Your task to perform on an android device: create a new album in the google photos Image 0: 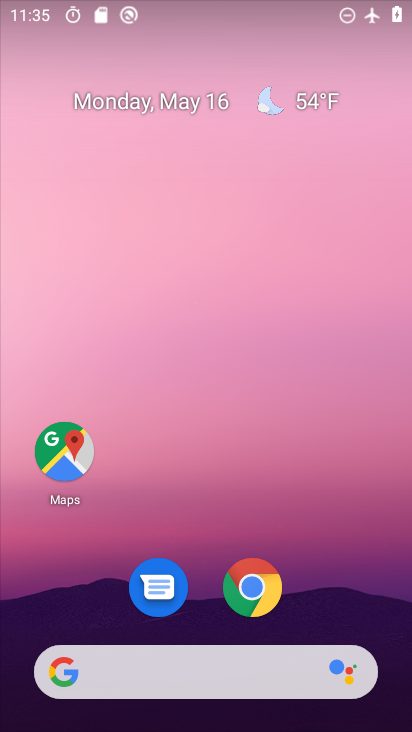
Step 0: drag from (201, 612) to (194, 136)
Your task to perform on an android device: create a new album in the google photos Image 1: 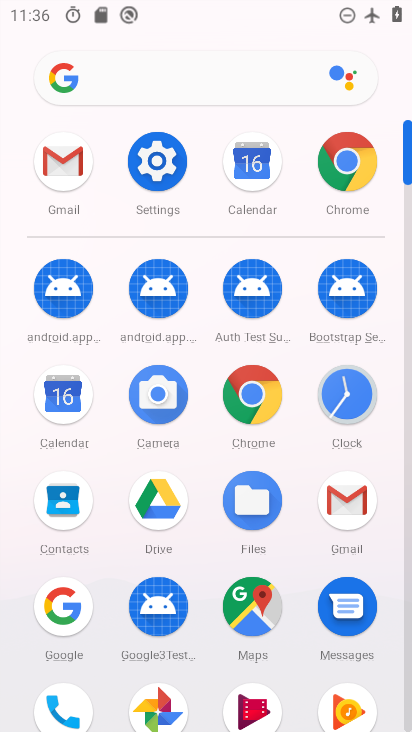
Step 1: drag from (191, 642) to (203, 207)
Your task to perform on an android device: create a new album in the google photos Image 2: 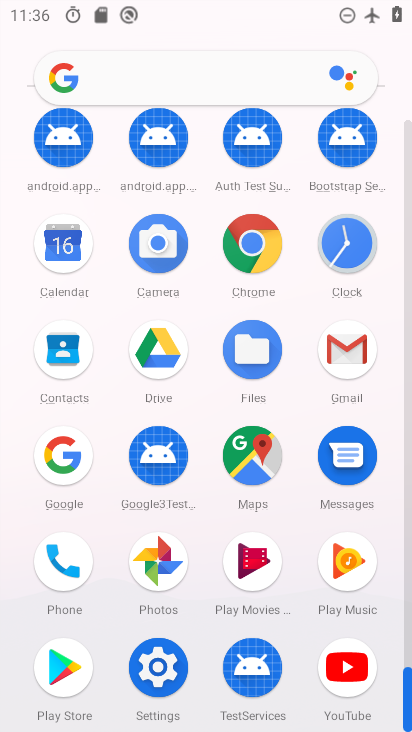
Step 2: click (165, 561)
Your task to perform on an android device: create a new album in the google photos Image 3: 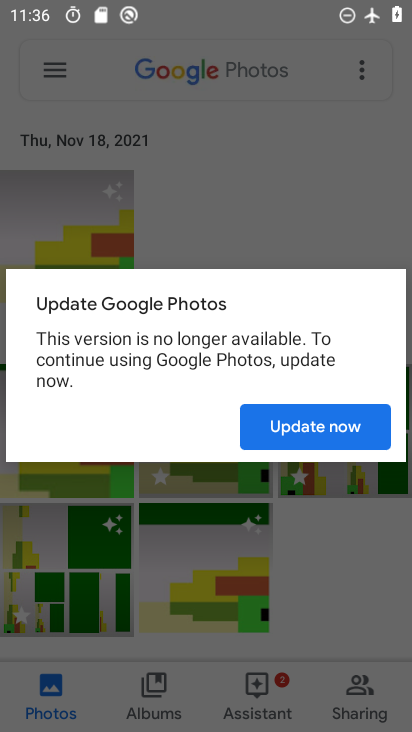
Step 3: click (282, 437)
Your task to perform on an android device: create a new album in the google photos Image 4: 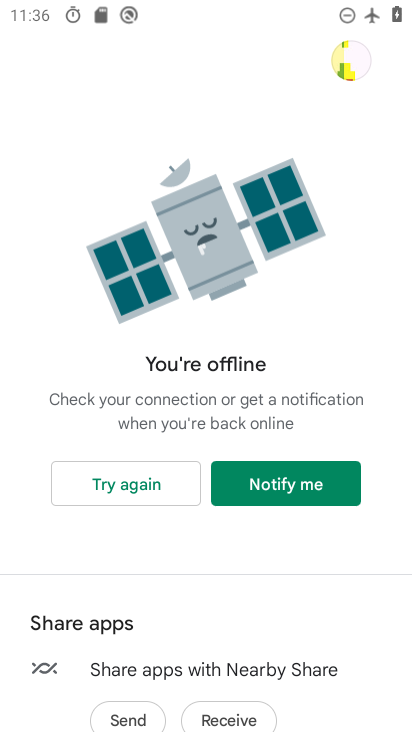
Step 4: click (115, 471)
Your task to perform on an android device: create a new album in the google photos Image 5: 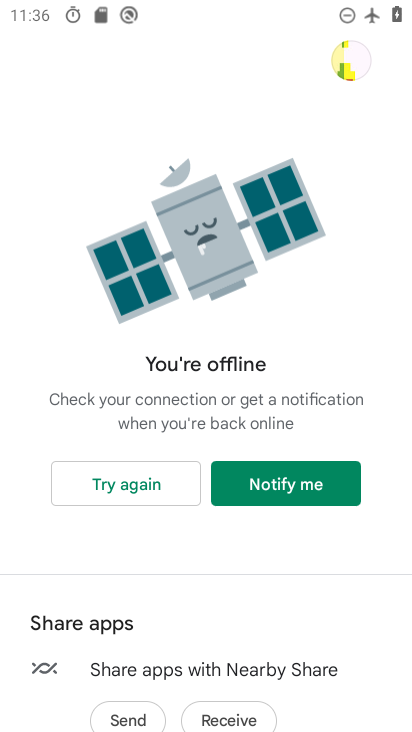
Step 5: click (100, 464)
Your task to perform on an android device: create a new album in the google photos Image 6: 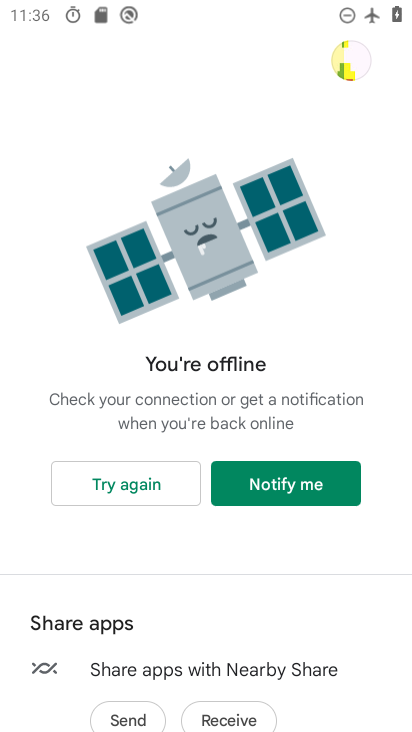
Step 6: task complete